Your task to perform on an android device: What's the weather going to be this weekend? Image 0: 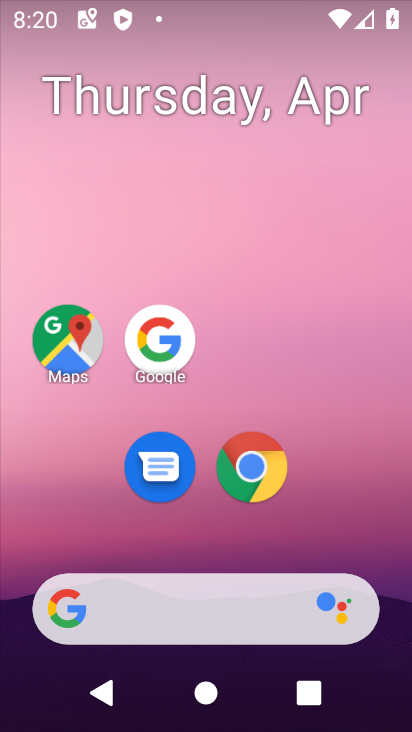
Step 0: drag from (230, 601) to (318, 182)
Your task to perform on an android device: What's the weather going to be this weekend? Image 1: 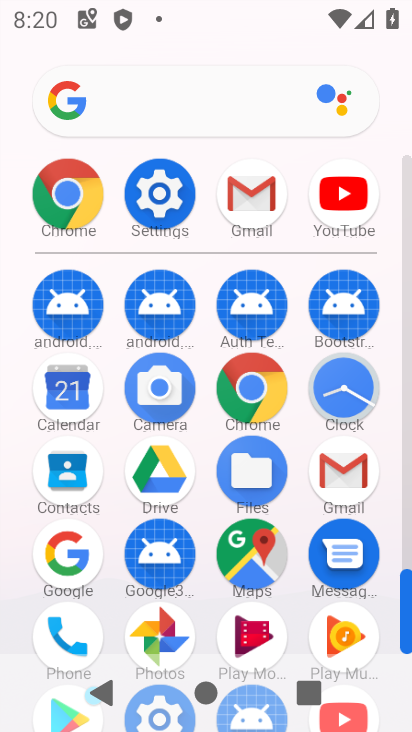
Step 1: click (60, 574)
Your task to perform on an android device: What's the weather going to be this weekend? Image 2: 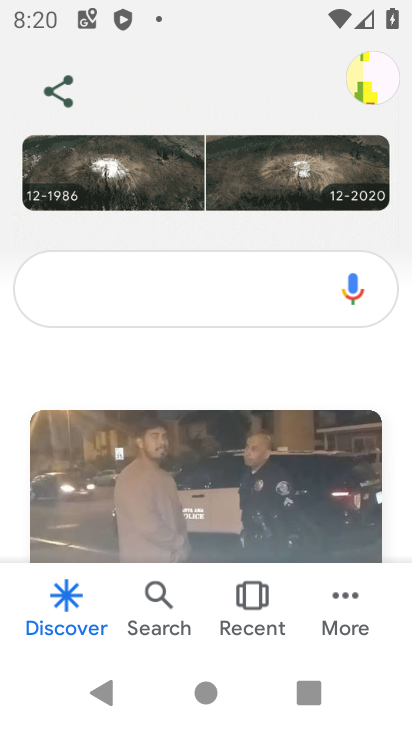
Step 2: drag from (244, 376) to (203, 43)
Your task to perform on an android device: What's the weather going to be this weekend? Image 3: 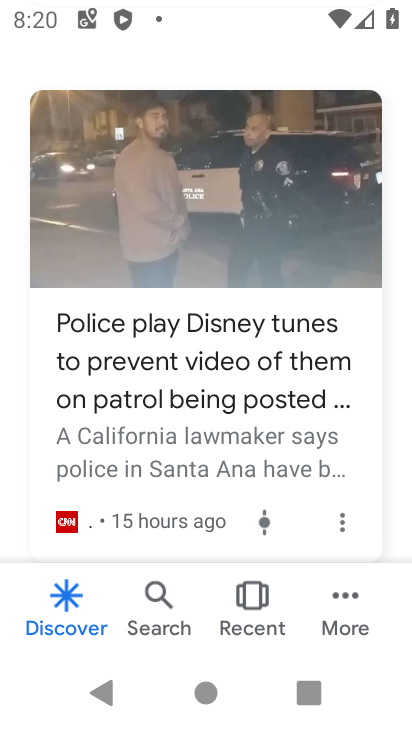
Step 3: drag from (183, 175) to (186, 486)
Your task to perform on an android device: What's the weather going to be this weekend? Image 4: 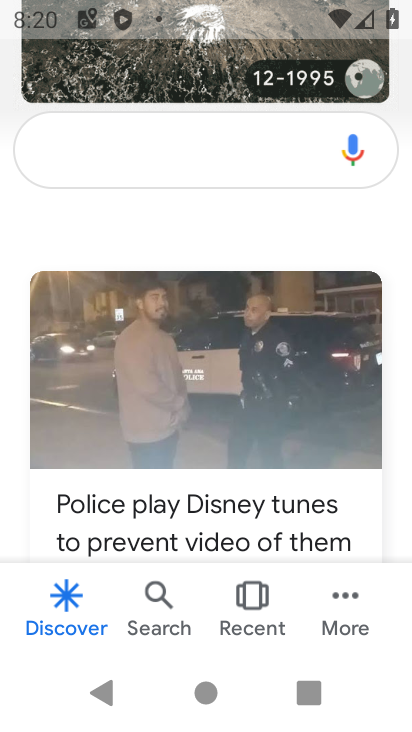
Step 4: click (202, 173)
Your task to perform on an android device: What's the weather going to be this weekend? Image 5: 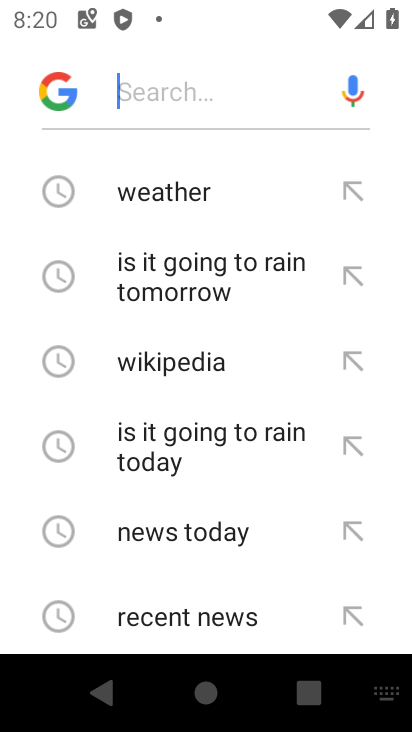
Step 5: click (200, 196)
Your task to perform on an android device: What's the weather going to be this weekend? Image 6: 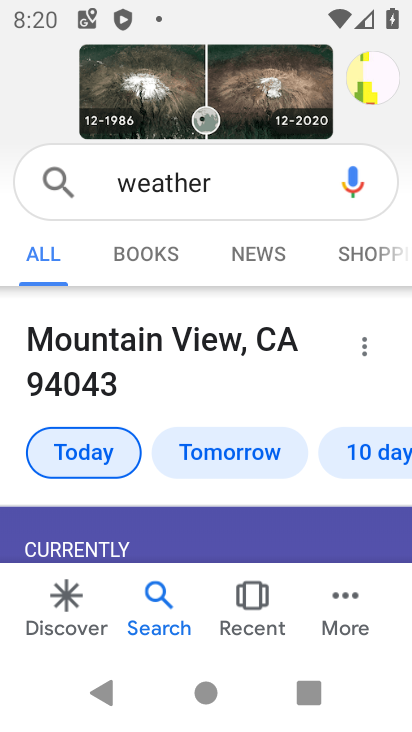
Step 6: click (345, 463)
Your task to perform on an android device: What's the weather going to be this weekend? Image 7: 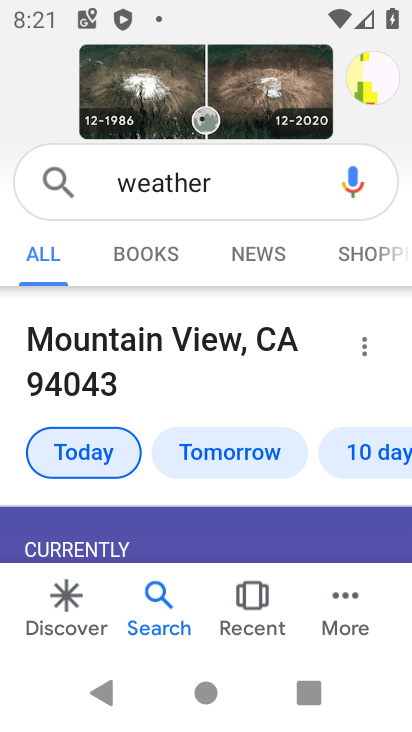
Step 7: click (372, 455)
Your task to perform on an android device: What's the weather going to be this weekend? Image 8: 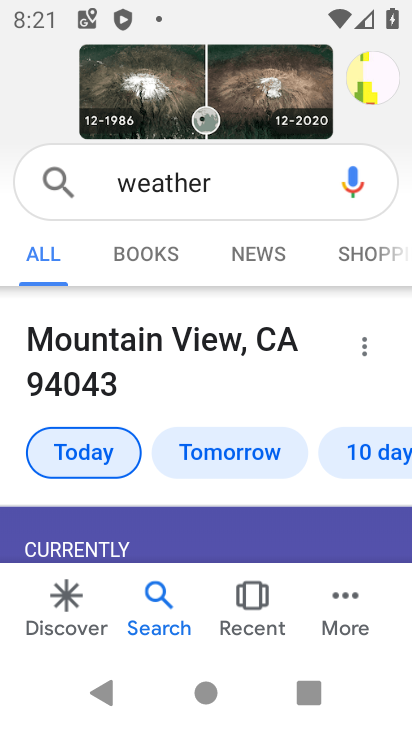
Step 8: click (249, 174)
Your task to perform on an android device: What's the weather going to be this weekend? Image 9: 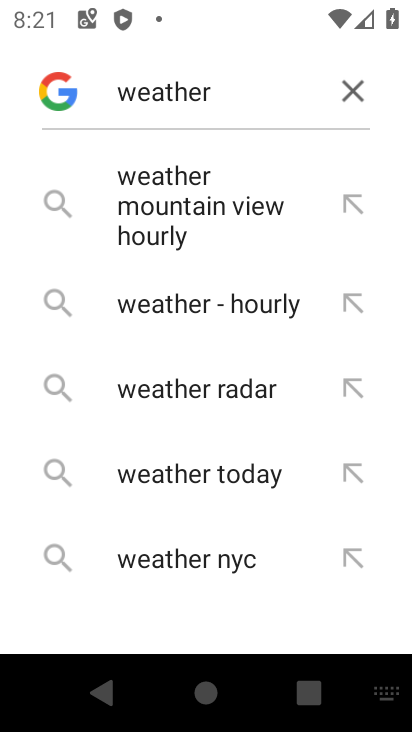
Step 9: type " this weekend"
Your task to perform on an android device: What's the weather going to be this weekend? Image 10: 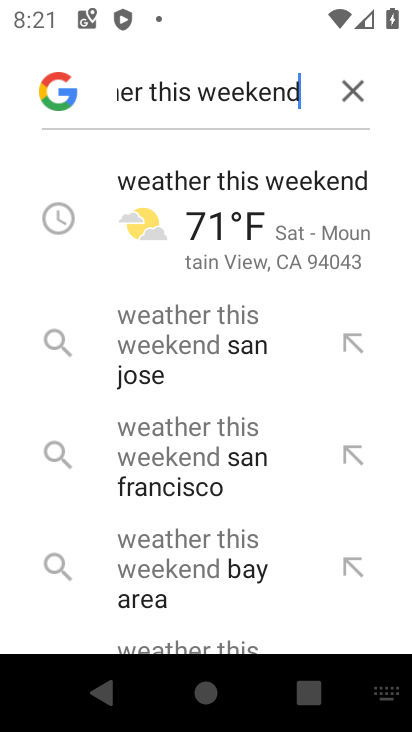
Step 10: click (239, 205)
Your task to perform on an android device: What's the weather going to be this weekend? Image 11: 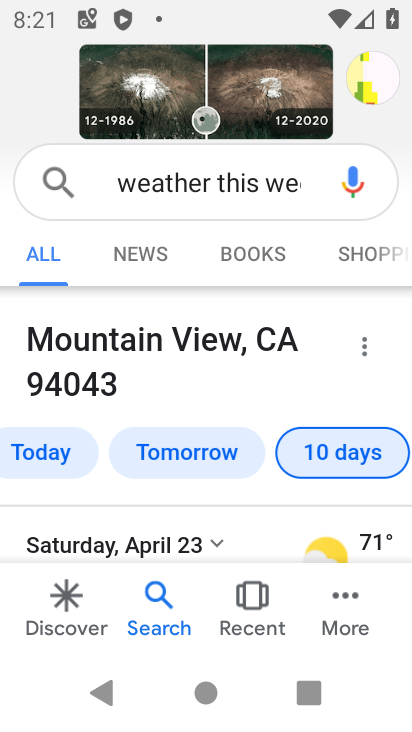
Step 11: task complete